Your task to perform on an android device: change the clock display to analog Image 0: 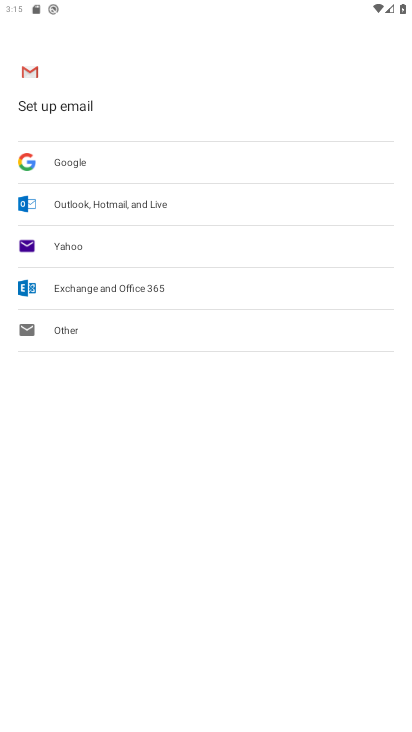
Step 0: press home button
Your task to perform on an android device: change the clock display to analog Image 1: 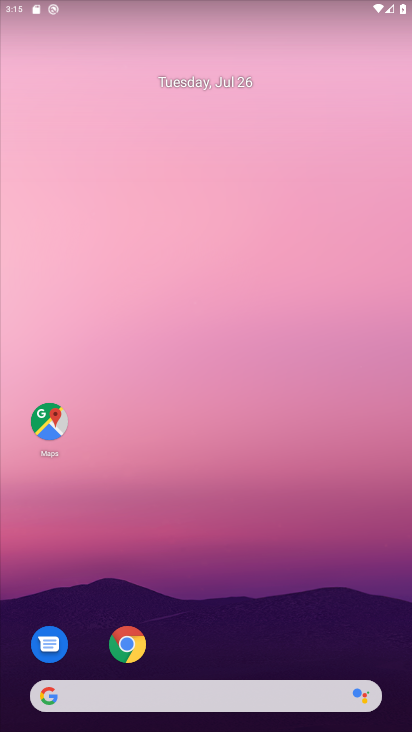
Step 1: drag from (243, 648) to (235, 107)
Your task to perform on an android device: change the clock display to analog Image 2: 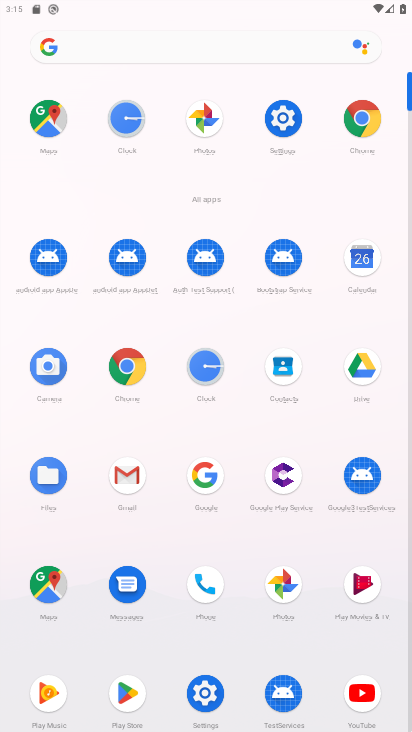
Step 2: click (199, 367)
Your task to perform on an android device: change the clock display to analog Image 3: 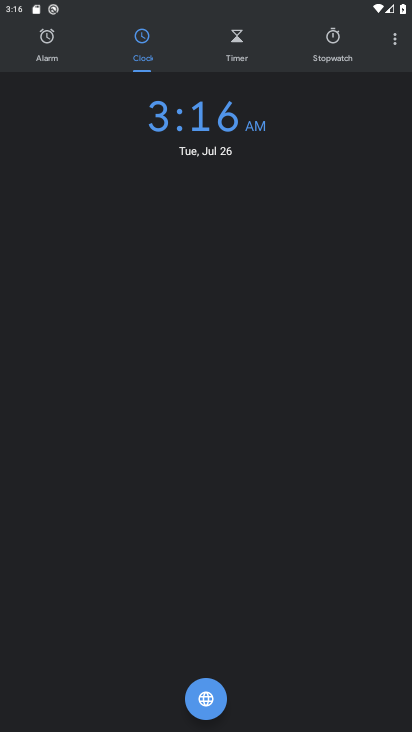
Step 3: click (401, 39)
Your task to perform on an android device: change the clock display to analog Image 4: 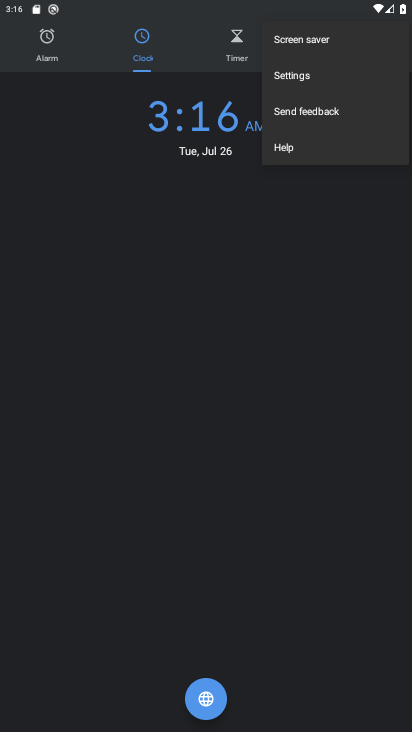
Step 4: click (314, 80)
Your task to perform on an android device: change the clock display to analog Image 5: 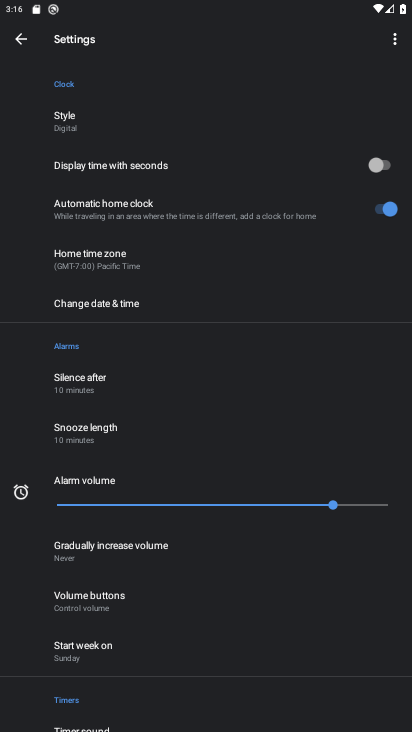
Step 5: click (87, 124)
Your task to perform on an android device: change the clock display to analog Image 6: 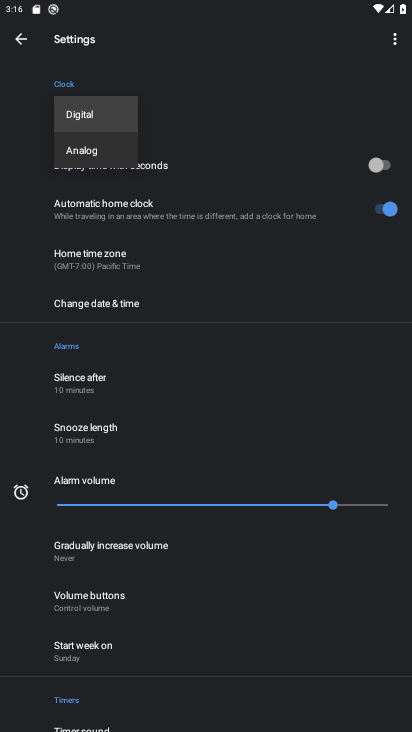
Step 6: click (87, 152)
Your task to perform on an android device: change the clock display to analog Image 7: 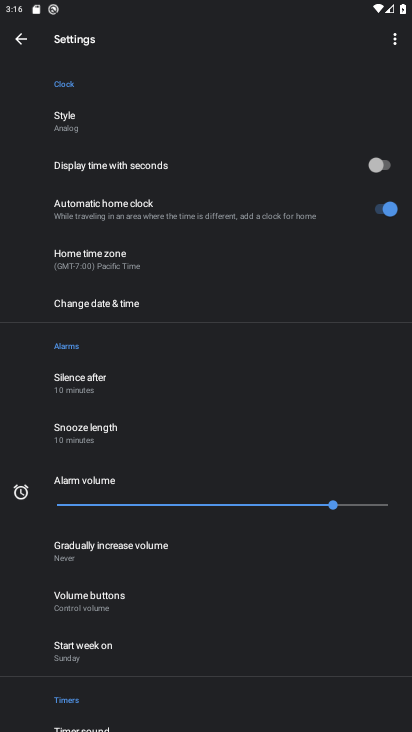
Step 7: task complete